Your task to perform on an android device: Go to calendar. Show me events next week Image 0: 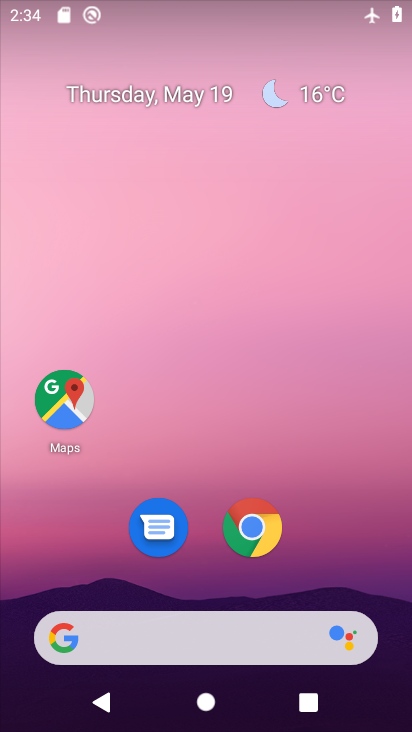
Step 0: click (183, 95)
Your task to perform on an android device: Go to calendar. Show me events next week Image 1: 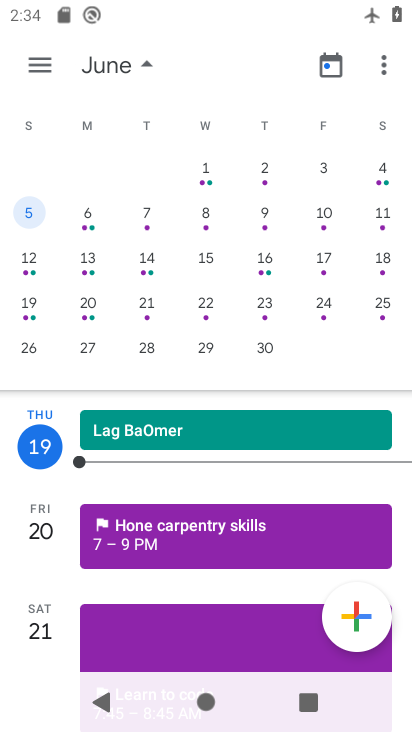
Step 1: drag from (54, 256) to (405, 270)
Your task to perform on an android device: Go to calendar. Show me events next week Image 2: 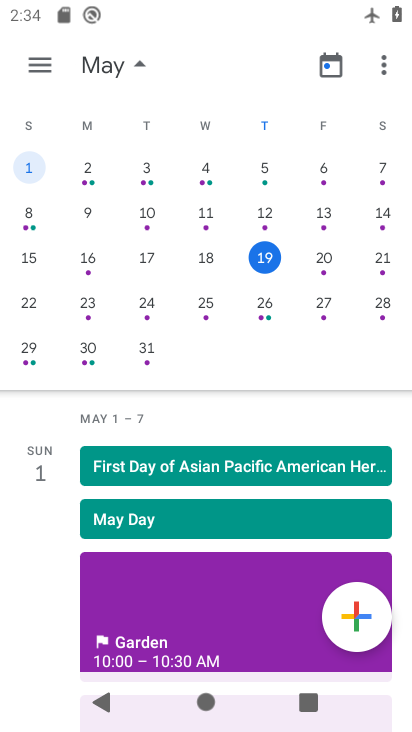
Step 2: click (38, 303)
Your task to perform on an android device: Go to calendar. Show me events next week Image 3: 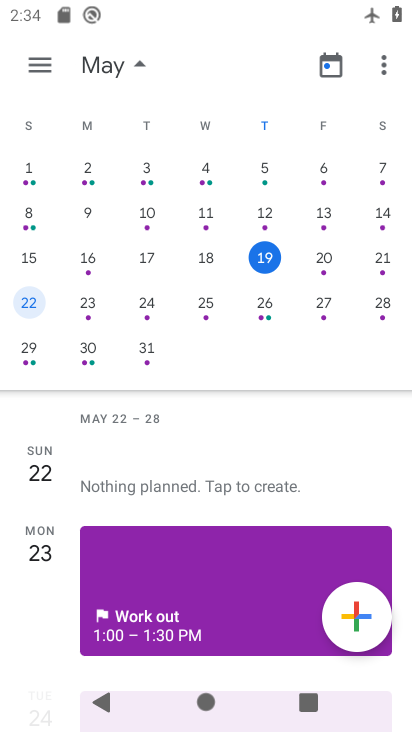
Step 3: task complete